Your task to perform on an android device: change the clock display to analog Image 0: 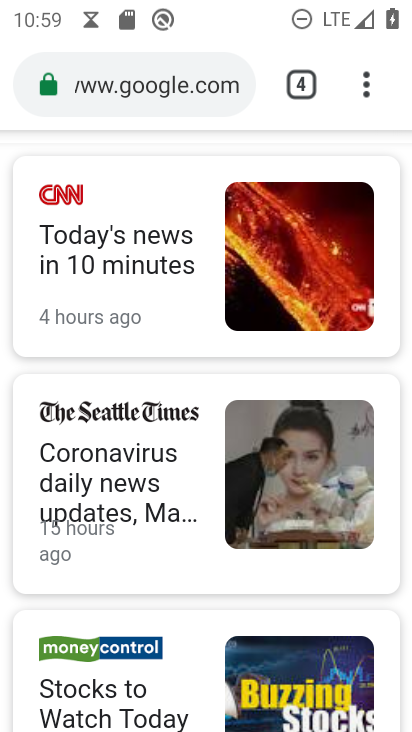
Step 0: press home button
Your task to perform on an android device: change the clock display to analog Image 1: 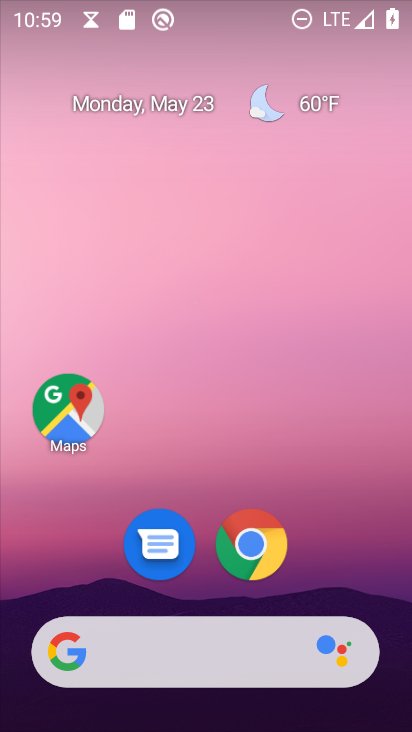
Step 1: drag from (344, 577) to (274, 353)
Your task to perform on an android device: change the clock display to analog Image 2: 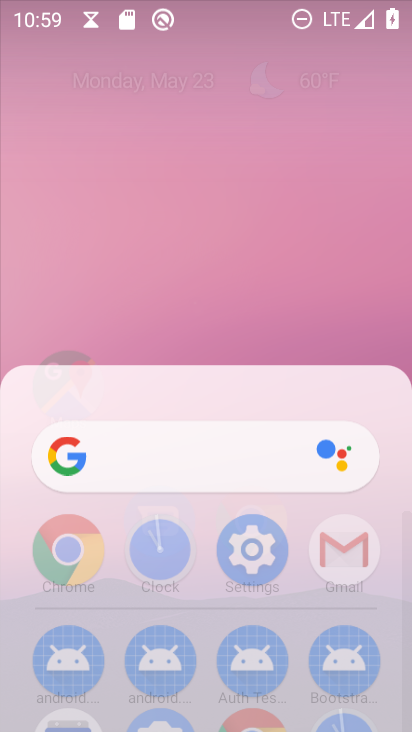
Step 2: click (192, 216)
Your task to perform on an android device: change the clock display to analog Image 3: 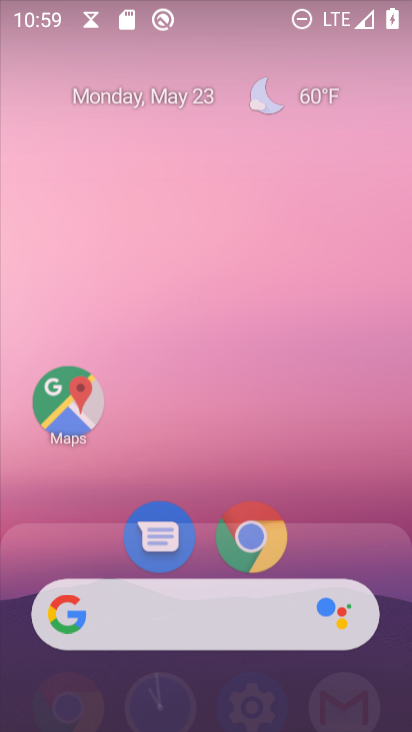
Step 3: click (181, 148)
Your task to perform on an android device: change the clock display to analog Image 4: 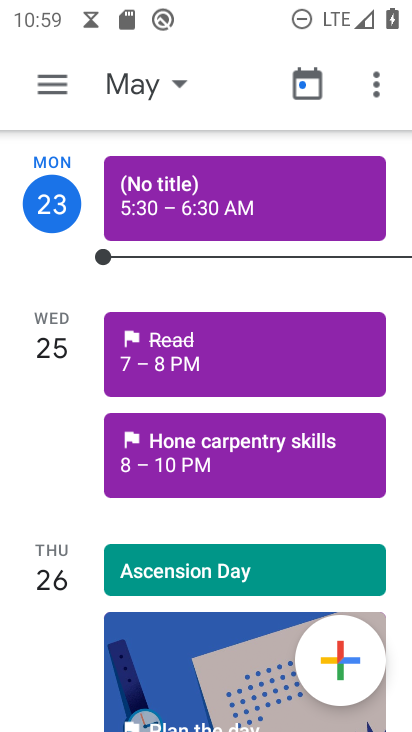
Step 4: press home button
Your task to perform on an android device: change the clock display to analog Image 5: 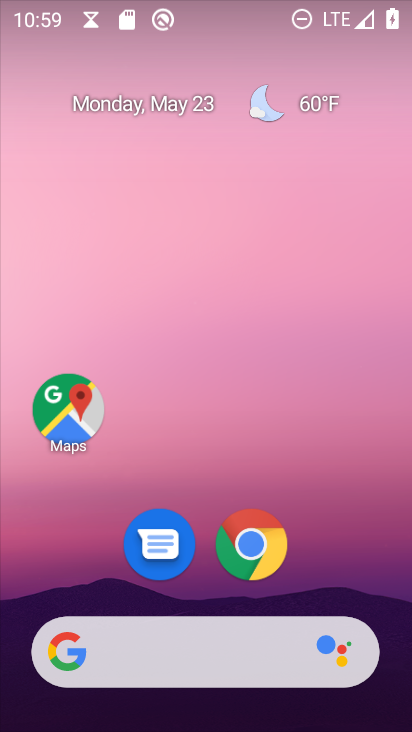
Step 5: drag from (315, 559) to (297, 65)
Your task to perform on an android device: change the clock display to analog Image 6: 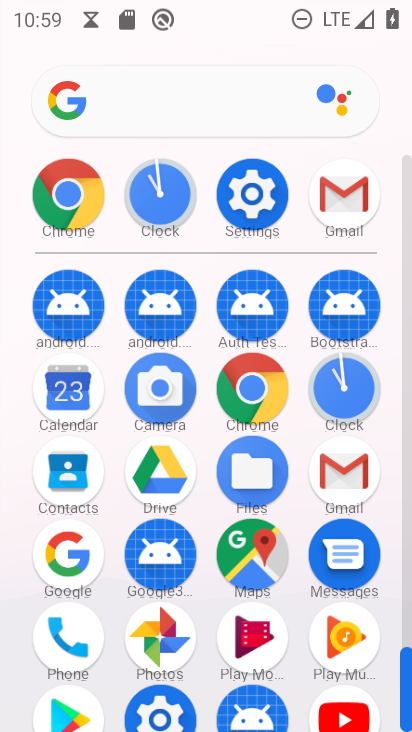
Step 6: click (355, 388)
Your task to perform on an android device: change the clock display to analog Image 7: 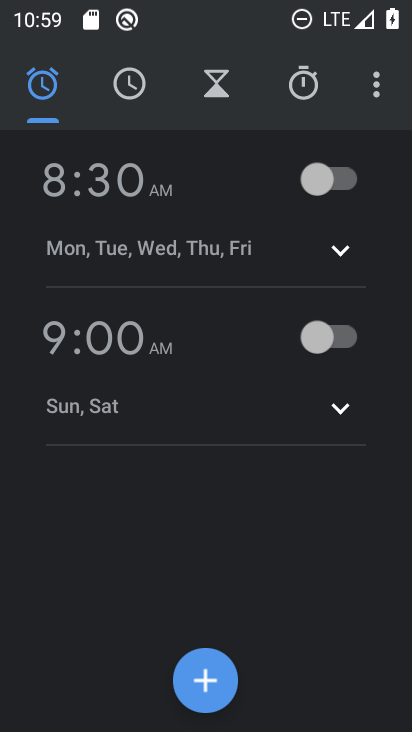
Step 7: click (375, 85)
Your task to perform on an android device: change the clock display to analog Image 8: 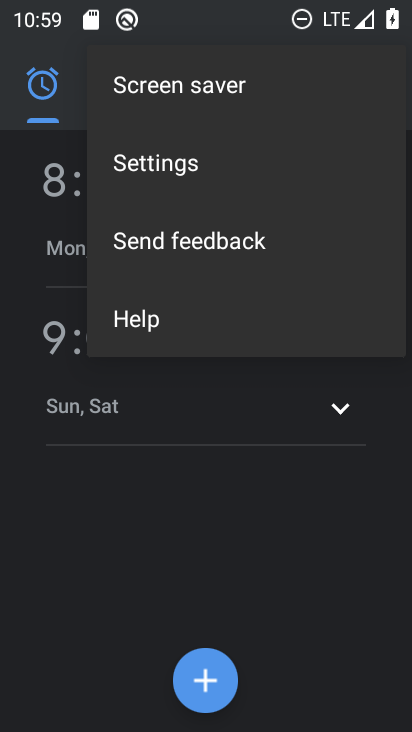
Step 8: click (170, 166)
Your task to perform on an android device: change the clock display to analog Image 9: 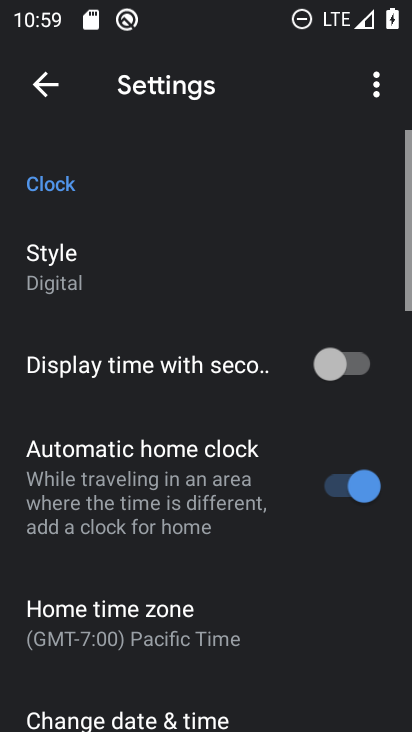
Step 9: click (73, 257)
Your task to perform on an android device: change the clock display to analog Image 10: 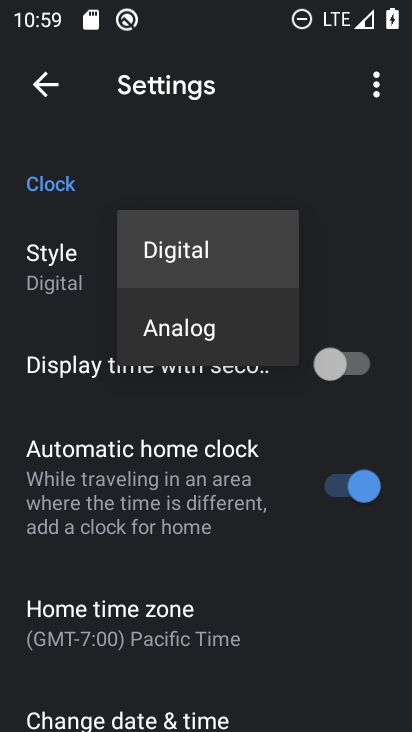
Step 10: click (172, 332)
Your task to perform on an android device: change the clock display to analog Image 11: 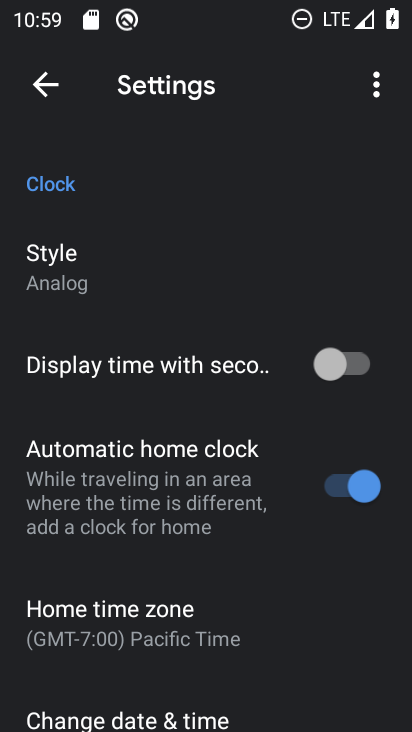
Step 11: task complete